Your task to perform on an android device: remove spam from my inbox in the gmail app Image 0: 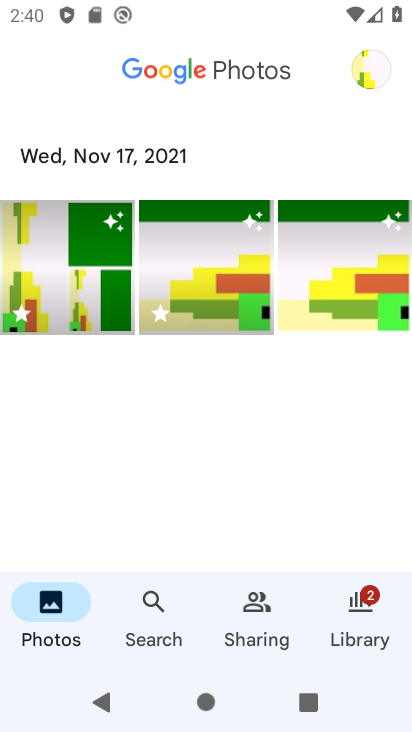
Step 0: press home button
Your task to perform on an android device: remove spam from my inbox in the gmail app Image 1: 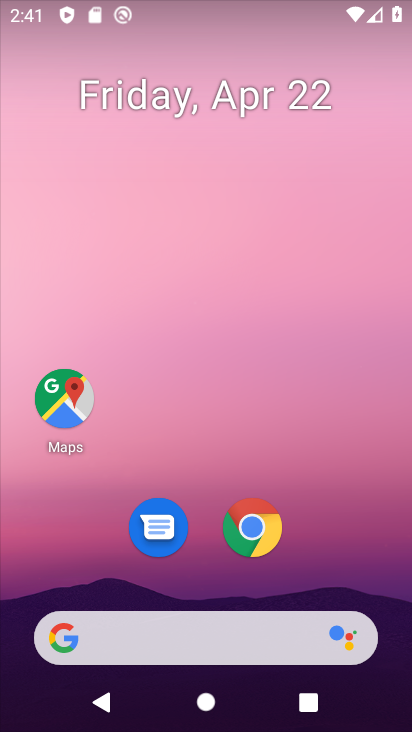
Step 1: drag from (374, 563) to (291, 38)
Your task to perform on an android device: remove spam from my inbox in the gmail app Image 2: 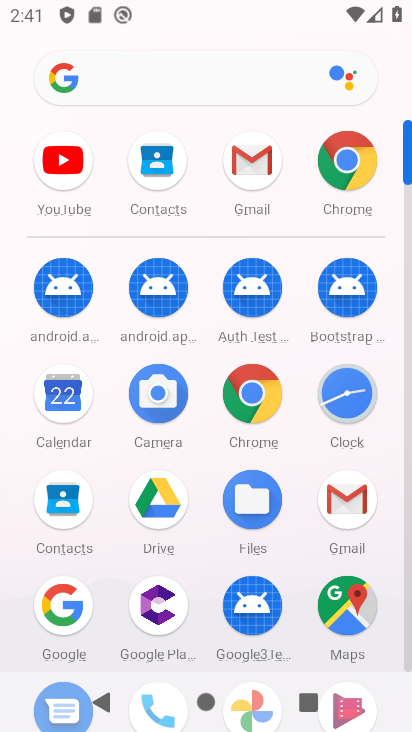
Step 2: click (359, 516)
Your task to perform on an android device: remove spam from my inbox in the gmail app Image 3: 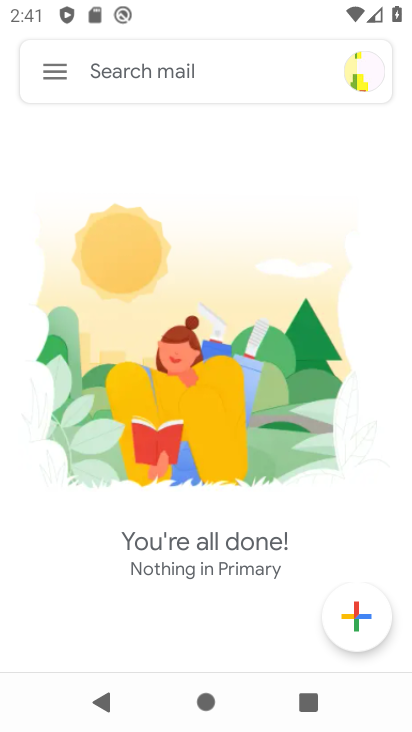
Step 3: click (40, 80)
Your task to perform on an android device: remove spam from my inbox in the gmail app Image 4: 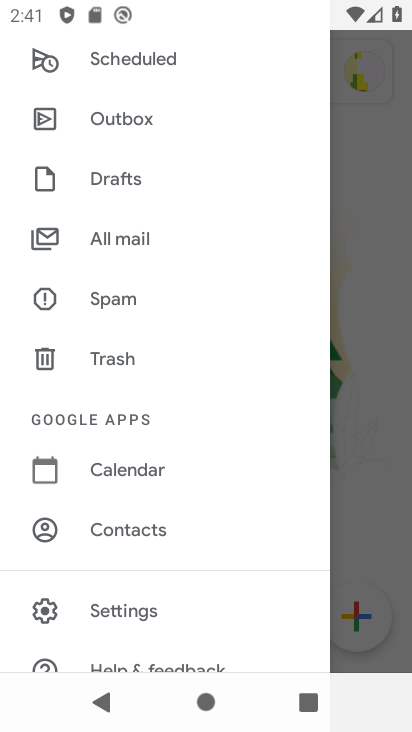
Step 4: click (94, 314)
Your task to perform on an android device: remove spam from my inbox in the gmail app Image 5: 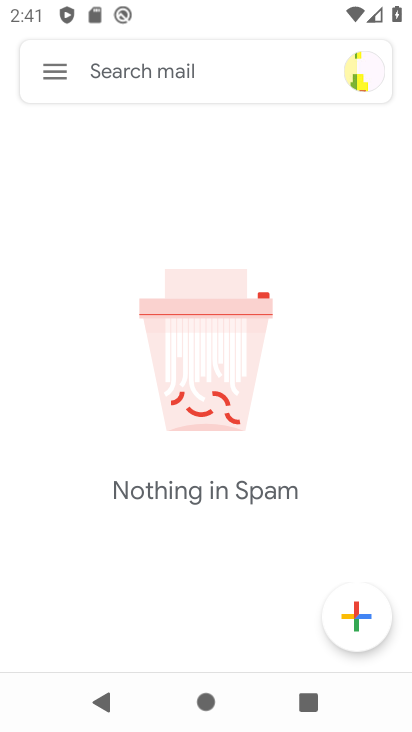
Step 5: task complete